Your task to perform on an android device: install app "DuckDuckGo Privacy Browser" Image 0: 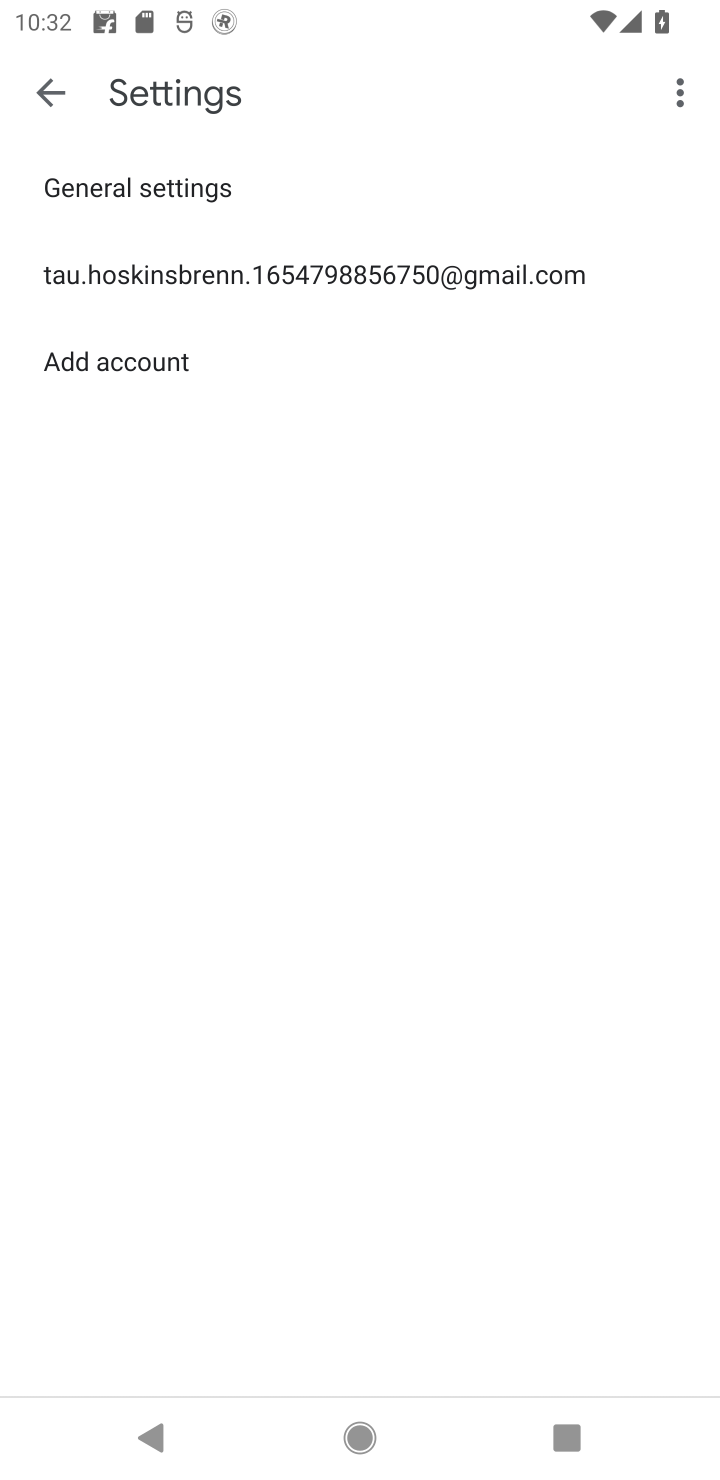
Step 0: press home button
Your task to perform on an android device: install app "DuckDuckGo Privacy Browser" Image 1: 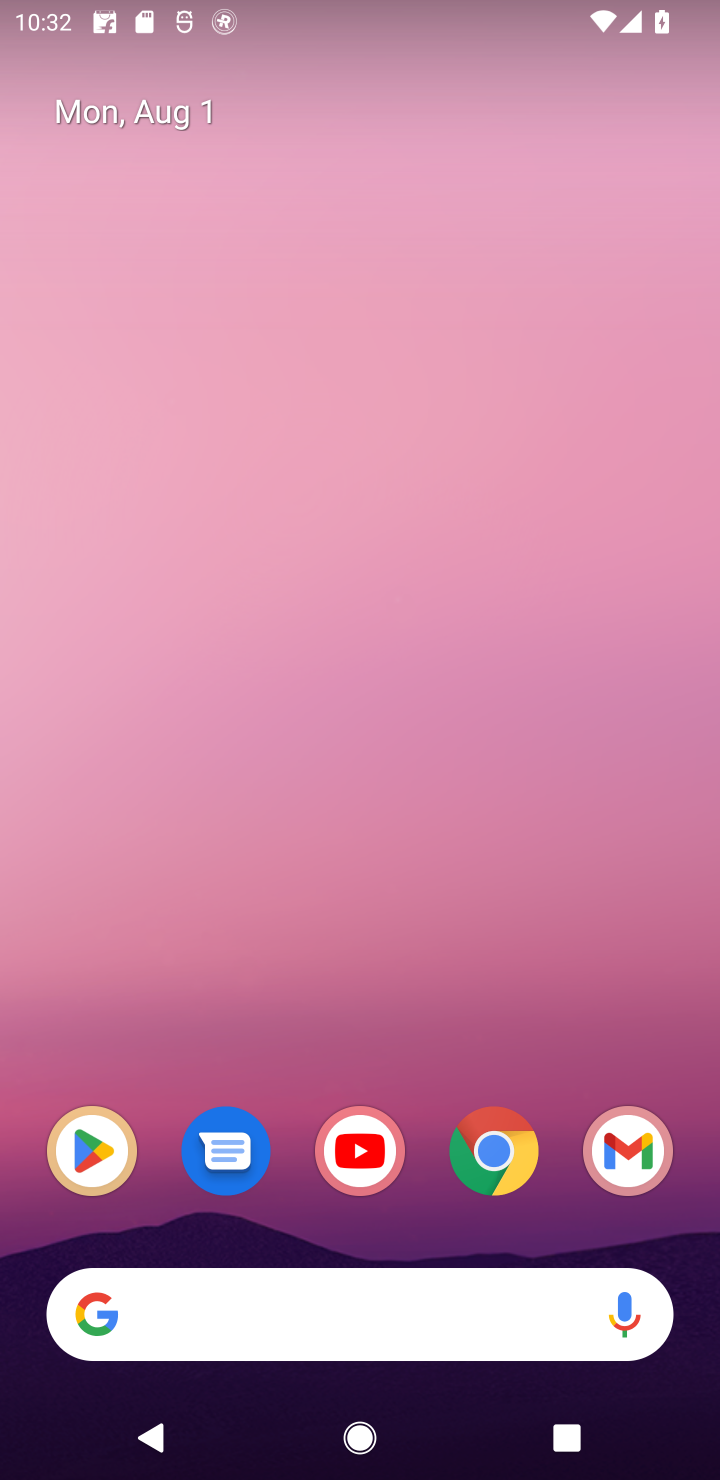
Step 1: click (69, 1139)
Your task to perform on an android device: install app "DuckDuckGo Privacy Browser" Image 2: 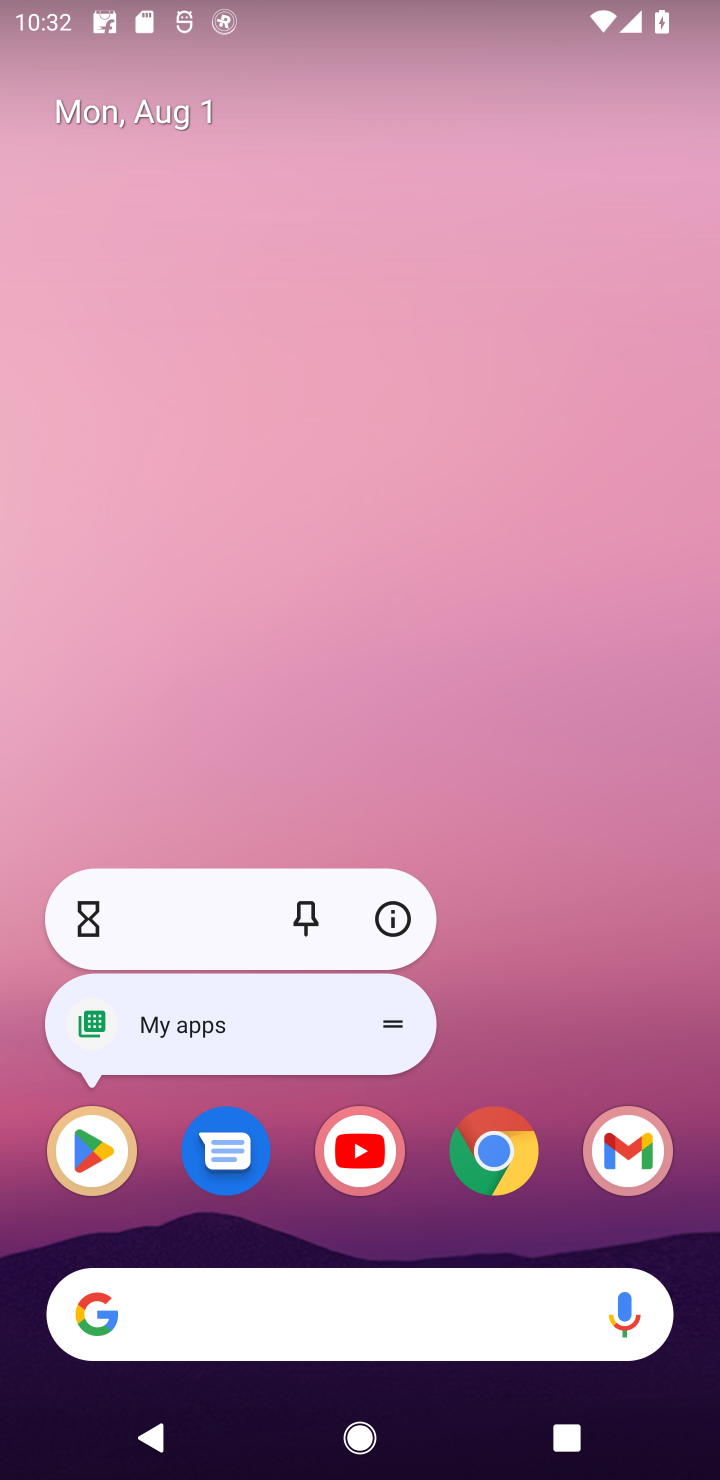
Step 2: click (96, 1163)
Your task to perform on an android device: install app "DuckDuckGo Privacy Browser" Image 3: 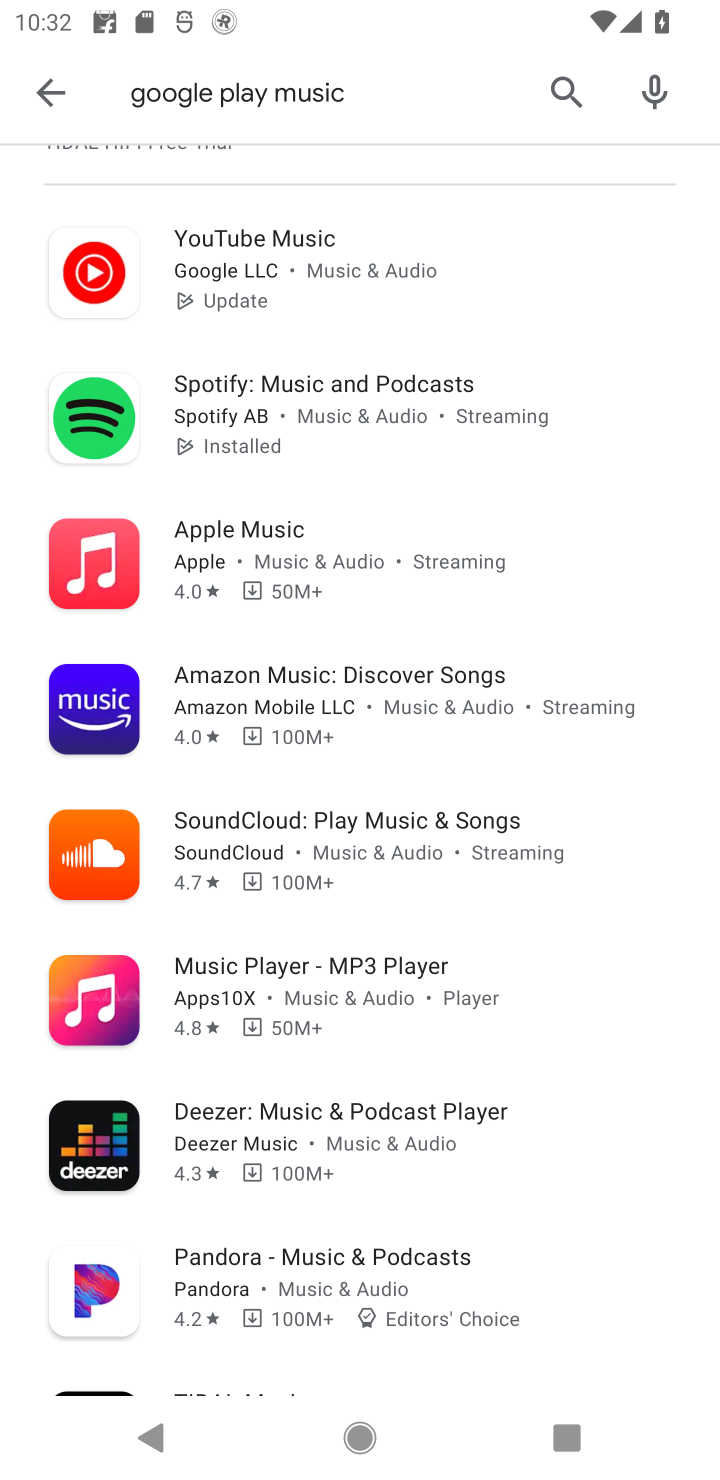
Step 3: click (560, 80)
Your task to perform on an android device: install app "DuckDuckGo Privacy Browser" Image 4: 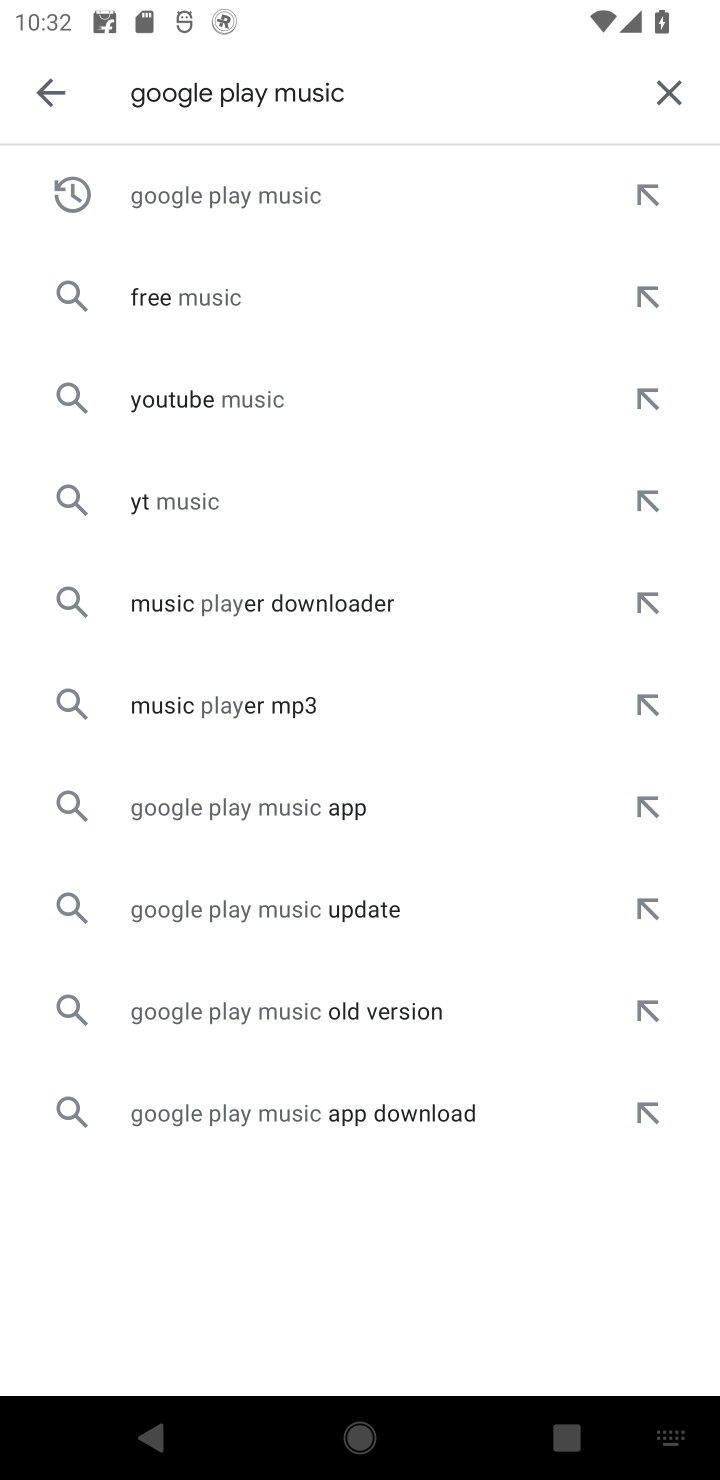
Step 4: click (652, 80)
Your task to perform on an android device: install app "DuckDuckGo Privacy Browser" Image 5: 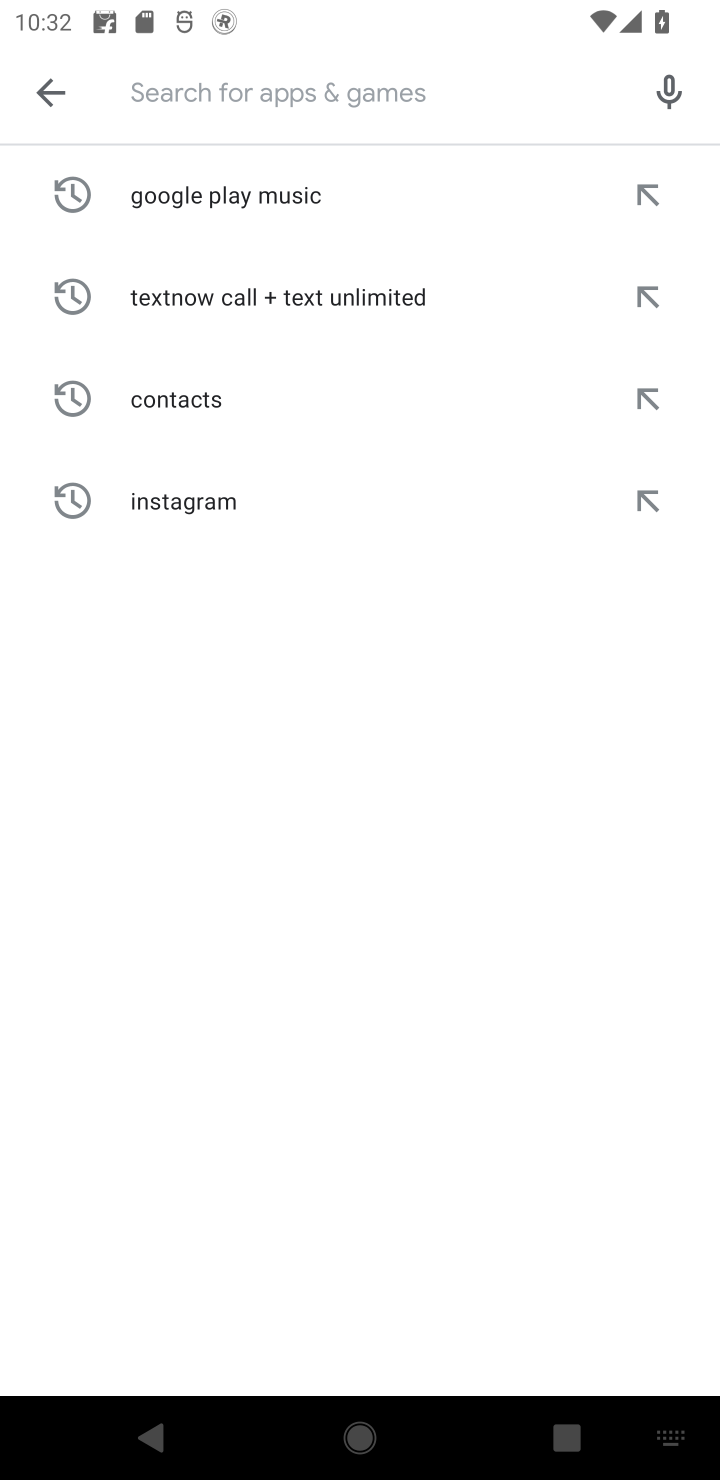
Step 5: type "DuckDuckGo Privacy Browser"
Your task to perform on an android device: install app "DuckDuckGo Privacy Browser" Image 6: 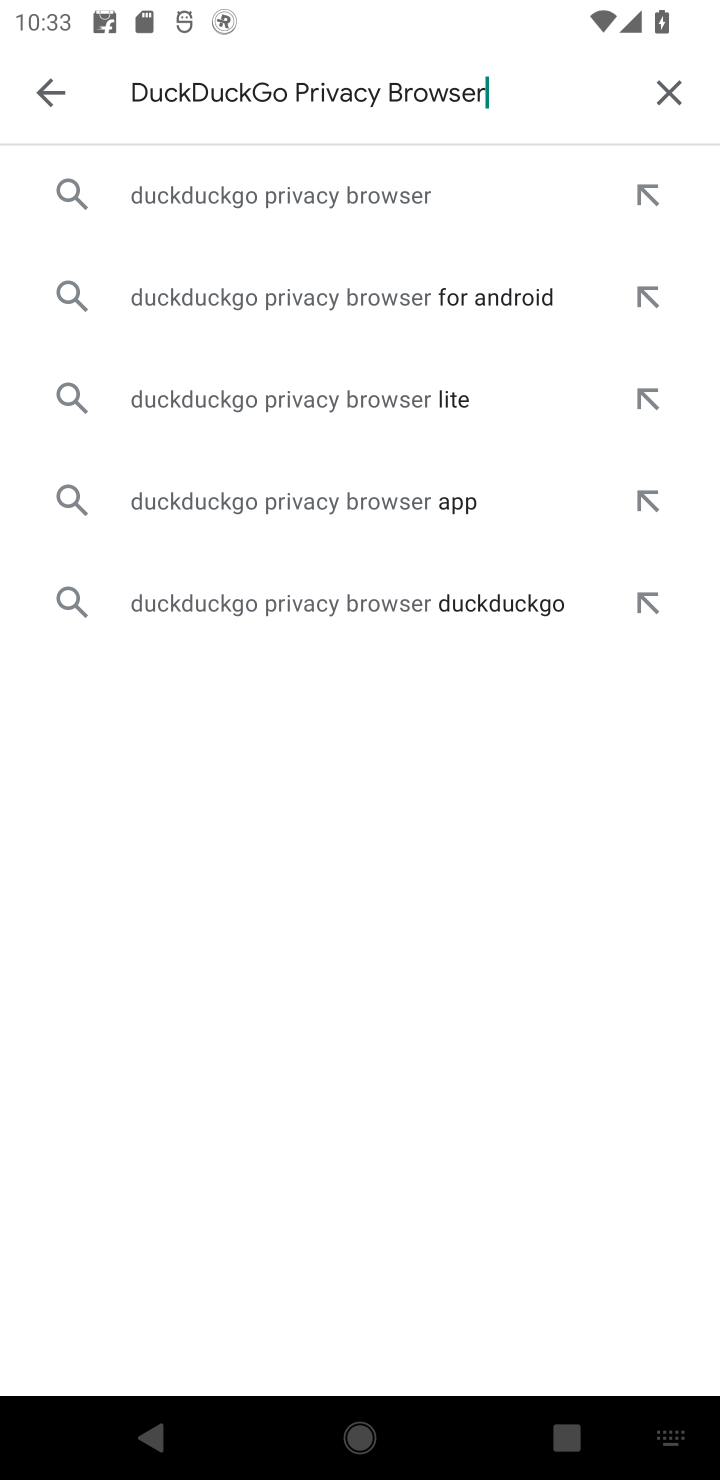
Step 6: click (320, 194)
Your task to perform on an android device: install app "DuckDuckGo Privacy Browser" Image 7: 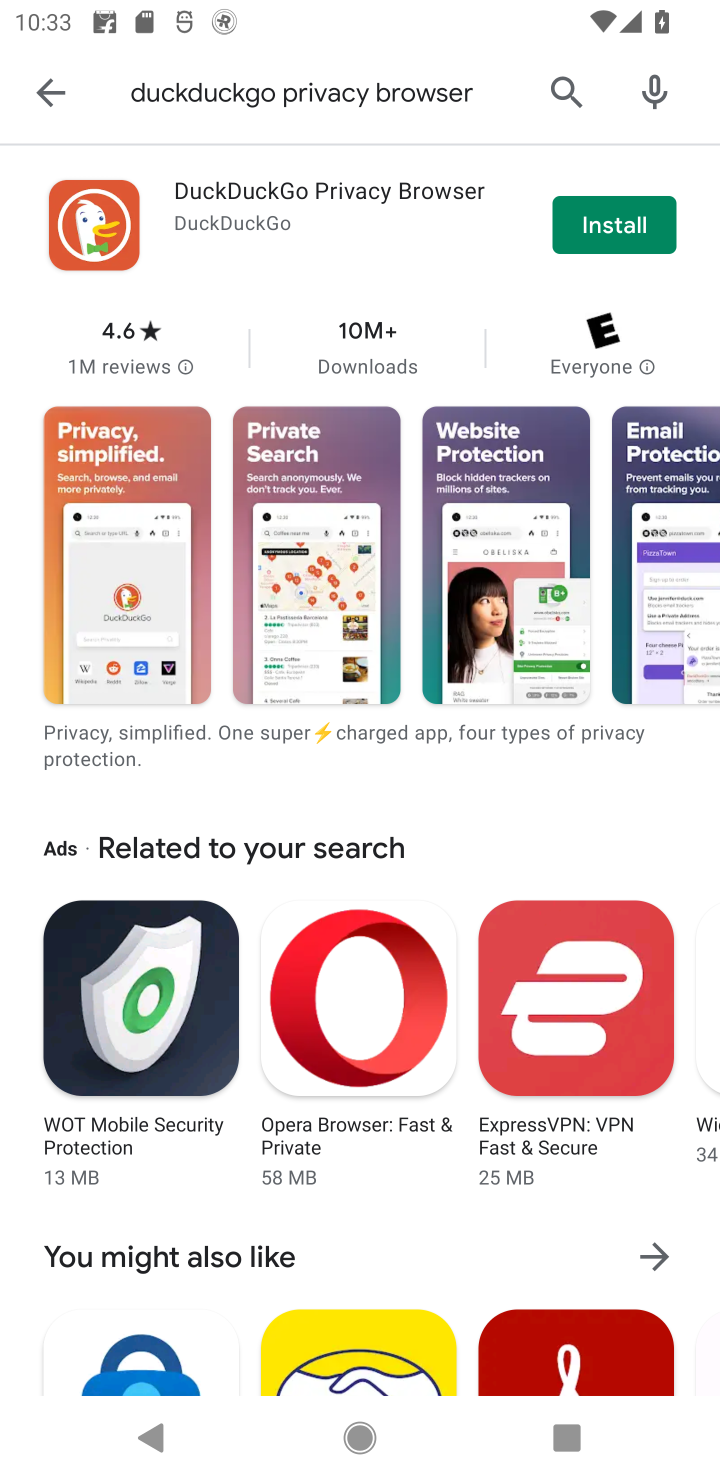
Step 7: click (570, 221)
Your task to perform on an android device: install app "DuckDuckGo Privacy Browser" Image 8: 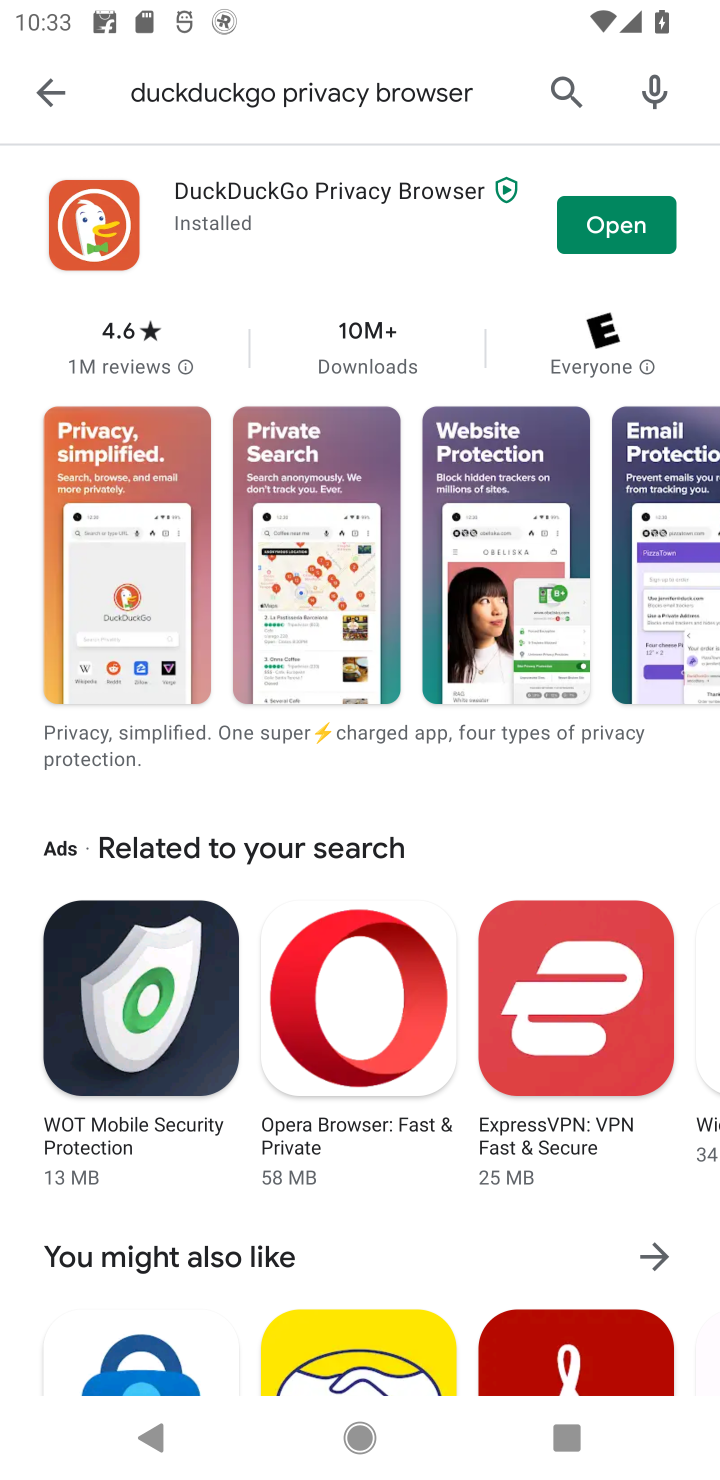
Step 8: task complete